Your task to perform on an android device: View the shopping cart on costco. Search for "usb-c to usb-a" on costco, select the first entry, and add it to the cart. Image 0: 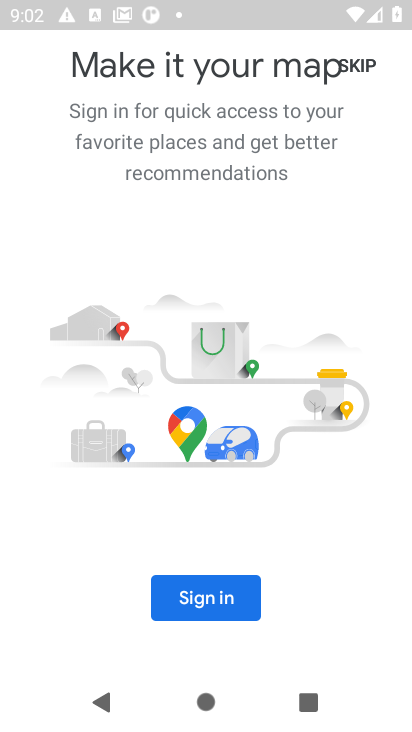
Step 0: press home button
Your task to perform on an android device: View the shopping cart on costco. Search for "usb-c to usb-a" on costco, select the first entry, and add it to the cart. Image 1: 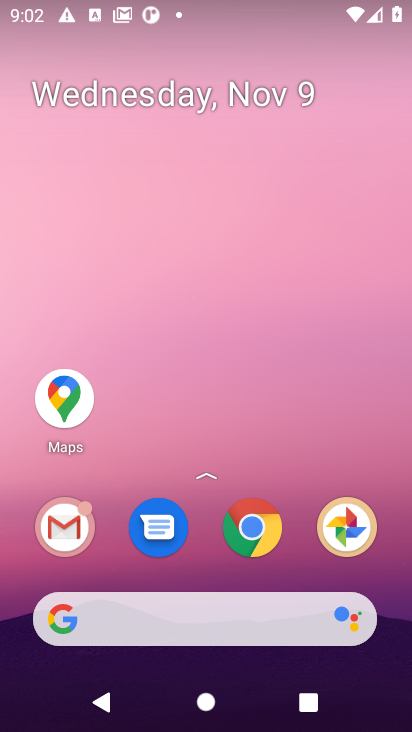
Step 1: click (257, 535)
Your task to perform on an android device: View the shopping cart on costco. Search for "usb-c to usb-a" on costco, select the first entry, and add it to the cart. Image 2: 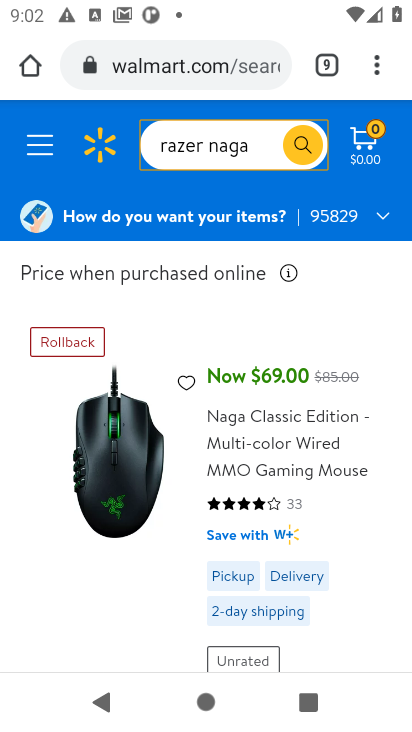
Step 2: click (166, 71)
Your task to perform on an android device: View the shopping cart on costco. Search for "usb-c to usb-a" on costco, select the first entry, and add it to the cart. Image 3: 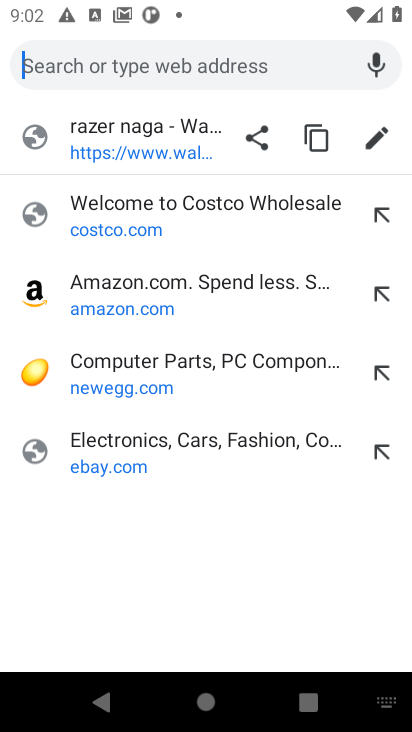
Step 3: click (118, 232)
Your task to perform on an android device: View the shopping cart on costco. Search for "usb-c to usb-a" on costco, select the first entry, and add it to the cart. Image 4: 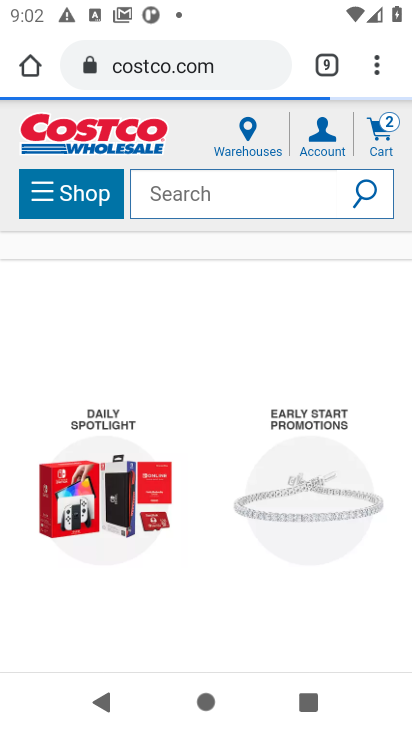
Step 4: click (374, 145)
Your task to perform on an android device: View the shopping cart on costco. Search for "usb-c to usb-a" on costco, select the first entry, and add it to the cart. Image 5: 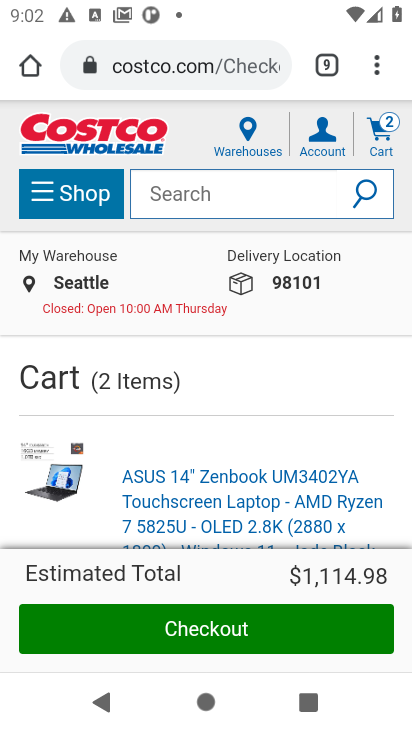
Step 5: drag from (249, 497) to (245, 285)
Your task to perform on an android device: View the shopping cart on costco. Search for "usb-c to usb-a" on costco, select the first entry, and add it to the cart. Image 6: 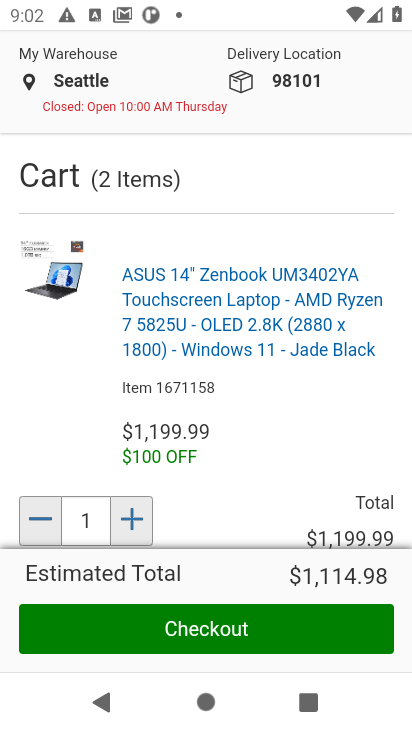
Step 6: drag from (220, 193) to (235, 441)
Your task to perform on an android device: View the shopping cart on costco. Search for "usb-c to usb-a" on costco, select the first entry, and add it to the cart. Image 7: 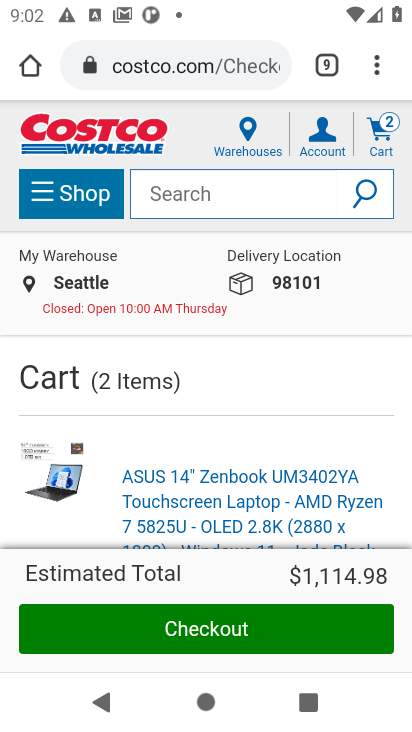
Step 7: click (212, 212)
Your task to perform on an android device: View the shopping cart on costco. Search for "usb-c to usb-a" on costco, select the first entry, and add it to the cart. Image 8: 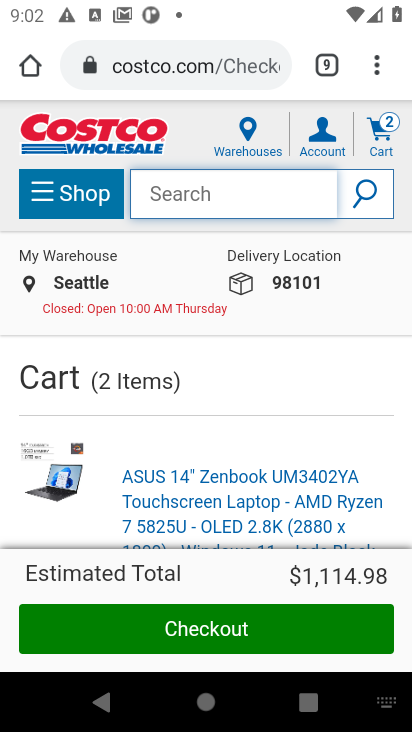
Step 8: type "usb-c to usb-a"
Your task to perform on an android device: View the shopping cart on costco. Search for "usb-c to usb-a" on costco, select the first entry, and add it to the cart. Image 9: 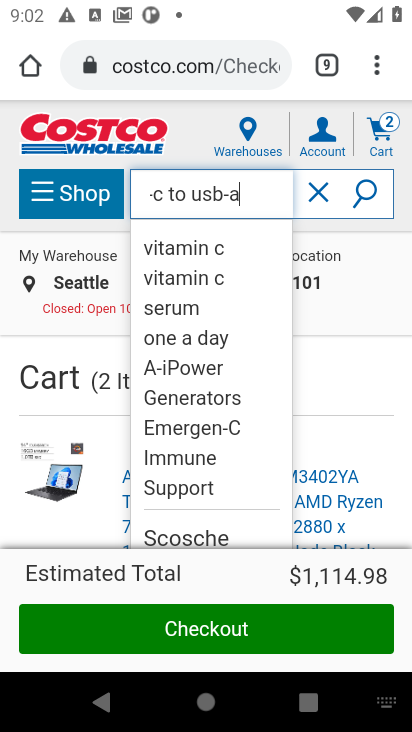
Step 9: click (369, 198)
Your task to perform on an android device: View the shopping cart on costco. Search for "usb-c to usb-a" on costco, select the first entry, and add it to the cart. Image 10: 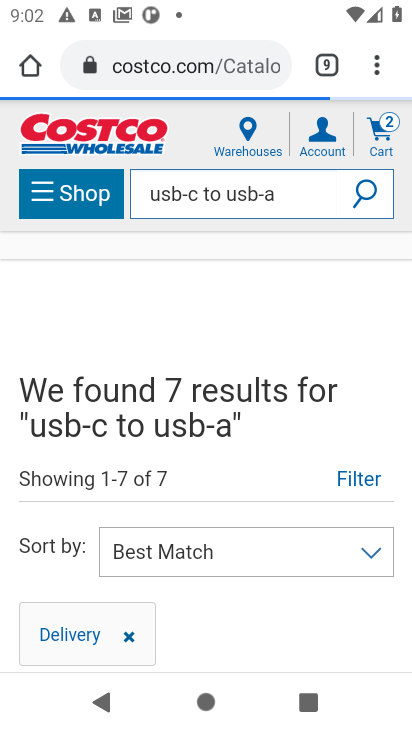
Step 10: task complete